Your task to perform on an android device: turn pop-ups on in chrome Image 0: 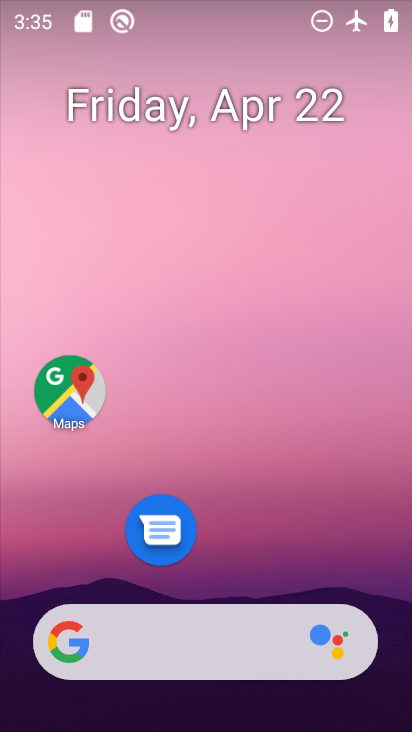
Step 0: drag from (275, 507) to (293, 15)
Your task to perform on an android device: turn pop-ups on in chrome Image 1: 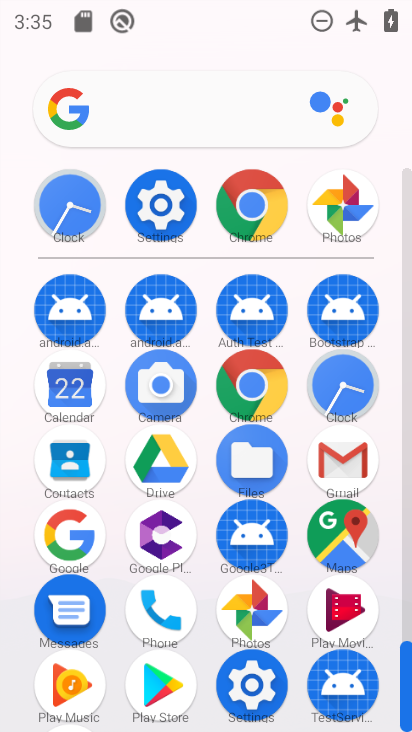
Step 1: click (249, 213)
Your task to perform on an android device: turn pop-ups on in chrome Image 2: 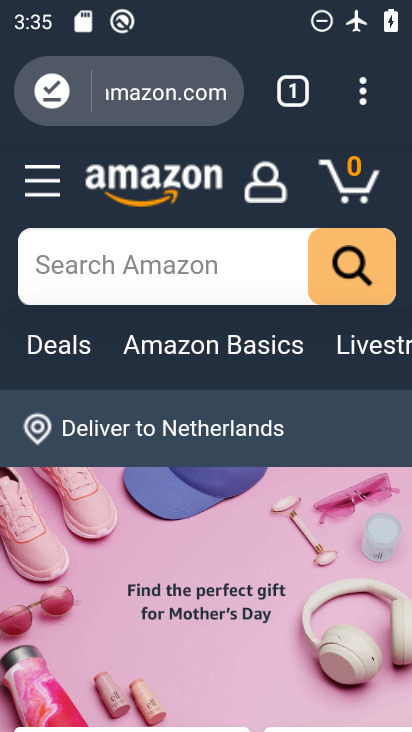
Step 2: click (363, 110)
Your task to perform on an android device: turn pop-ups on in chrome Image 3: 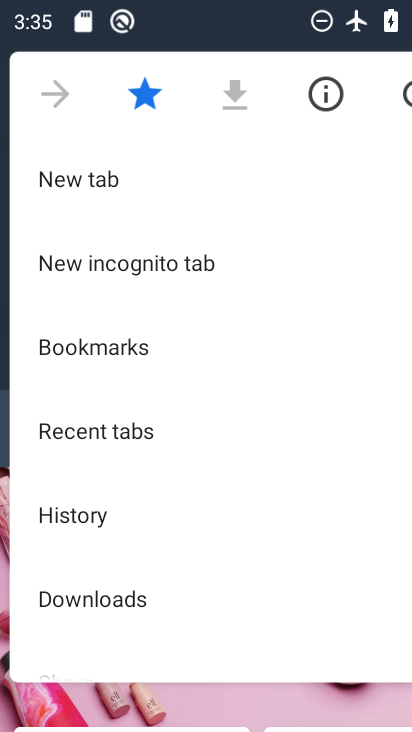
Step 3: drag from (161, 589) to (191, 238)
Your task to perform on an android device: turn pop-ups on in chrome Image 4: 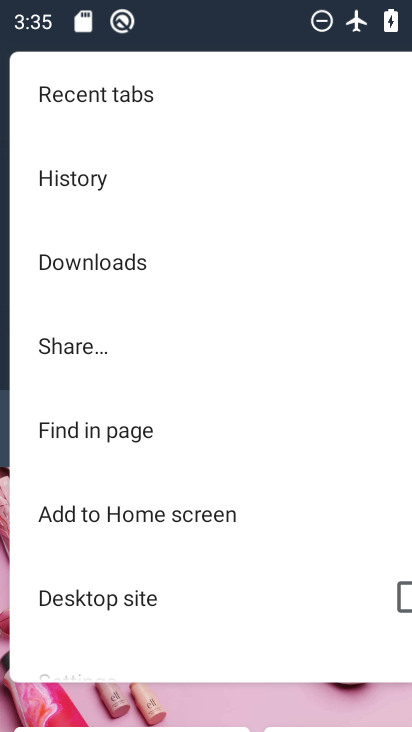
Step 4: drag from (202, 522) to (238, 334)
Your task to perform on an android device: turn pop-ups on in chrome Image 5: 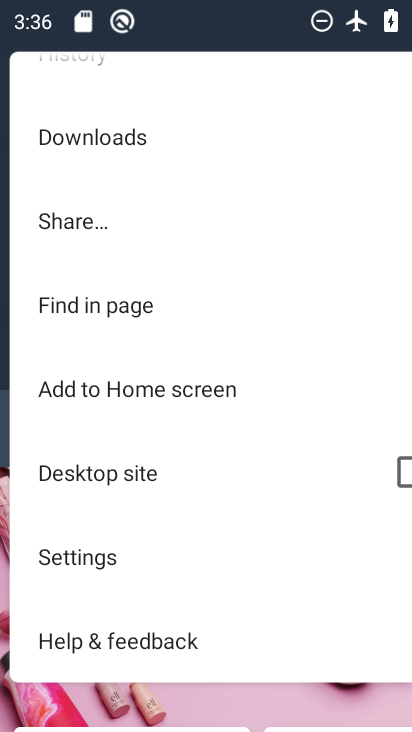
Step 5: click (76, 547)
Your task to perform on an android device: turn pop-ups on in chrome Image 6: 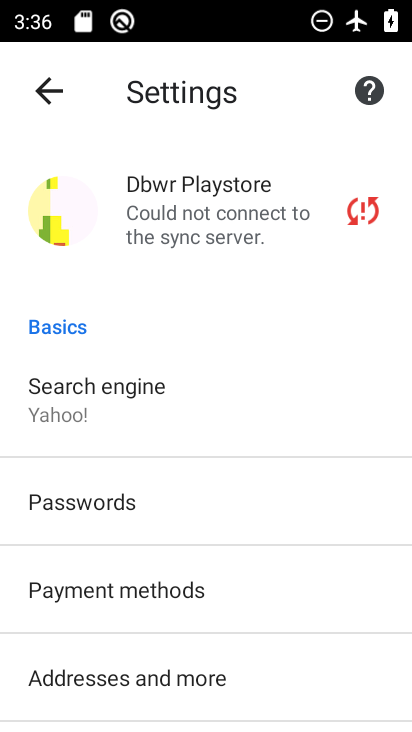
Step 6: drag from (218, 576) to (191, 359)
Your task to perform on an android device: turn pop-ups on in chrome Image 7: 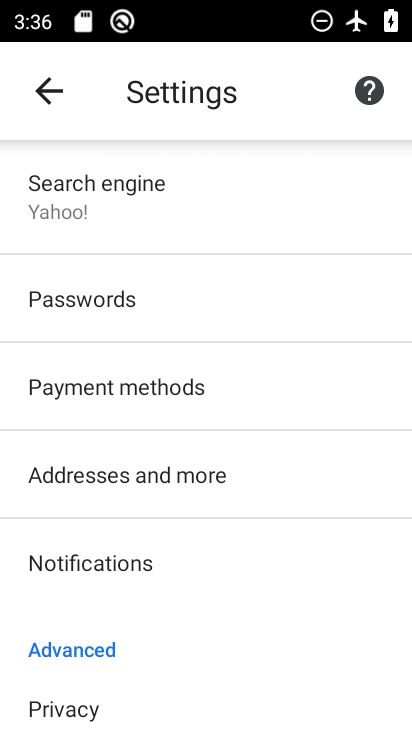
Step 7: drag from (247, 641) to (251, 213)
Your task to perform on an android device: turn pop-ups on in chrome Image 8: 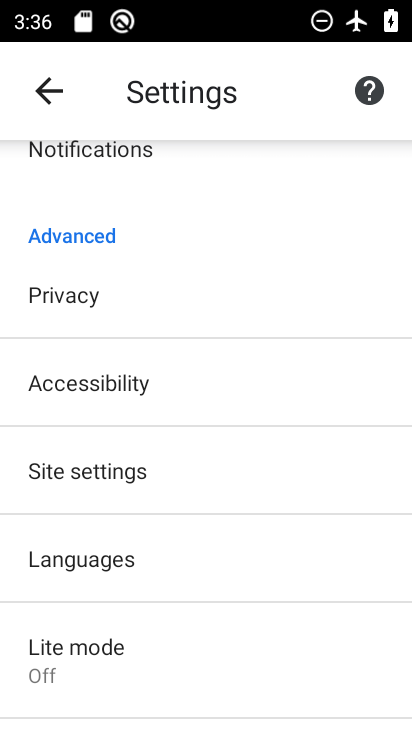
Step 8: click (99, 472)
Your task to perform on an android device: turn pop-ups on in chrome Image 9: 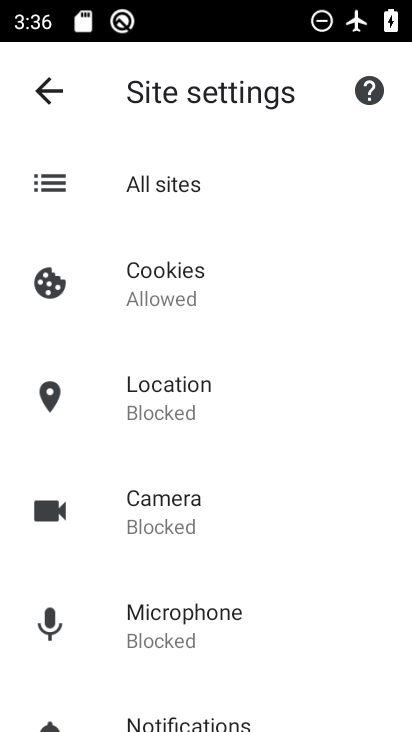
Step 9: drag from (261, 589) to (263, 14)
Your task to perform on an android device: turn pop-ups on in chrome Image 10: 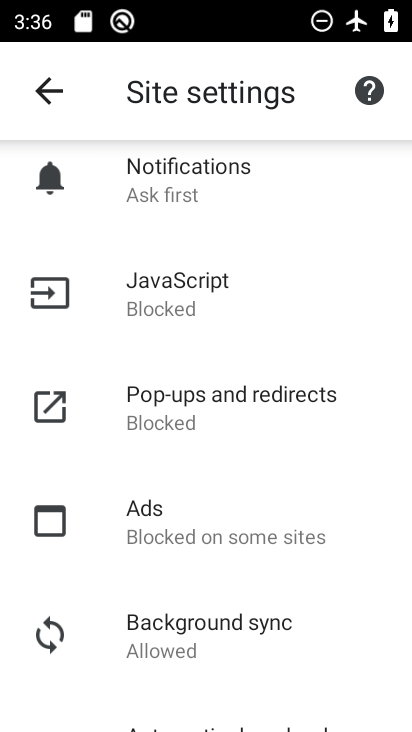
Step 10: click (173, 388)
Your task to perform on an android device: turn pop-ups on in chrome Image 11: 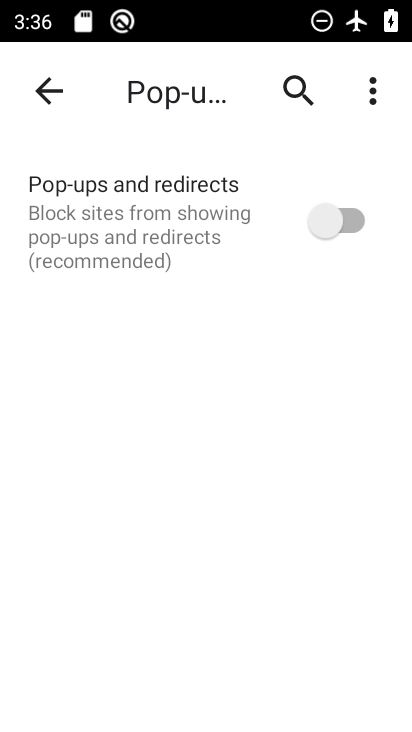
Step 11: click (326, 225)
Your task to perform on an android device: turn pop-ups on in chrome Image 12: 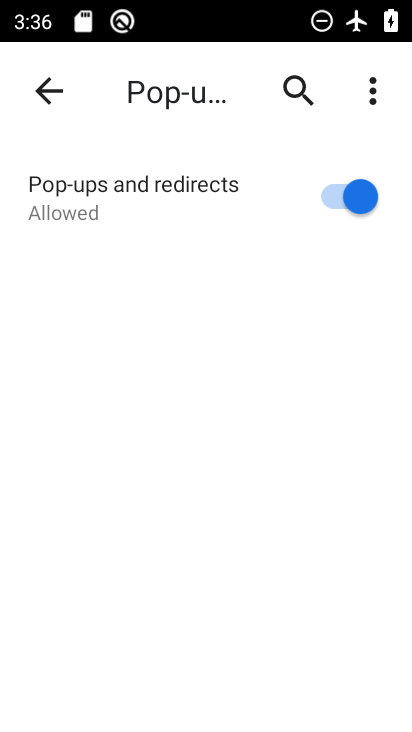
Step 12: task complete